Your task to perform on an android device: set an alarm Image 0: 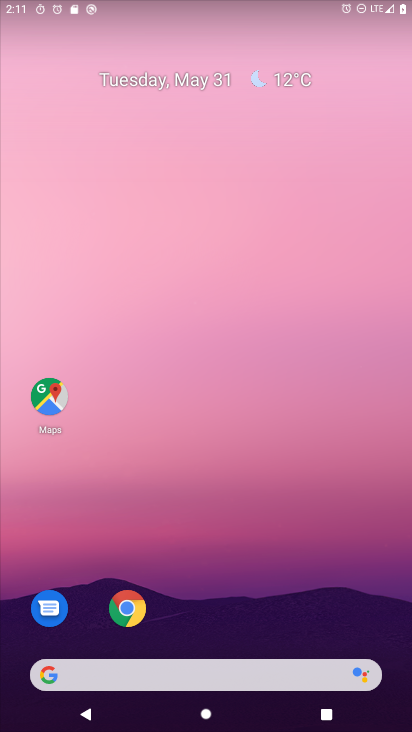
Step 0: drag from (331, 649) to (362, 26)
Your task to perform on an android device: set an alarm Image 1: 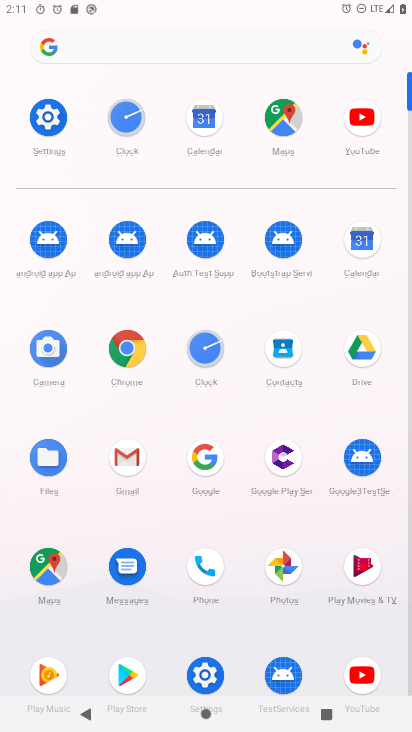
Step 1: click (118, 122)
Your task to perform on an android device: set an alarm Image 2: 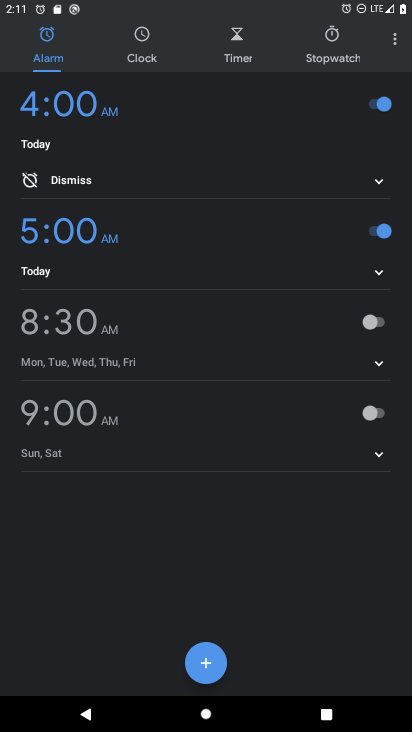
Step 2: click (211, 663)
Your task to perform on an android device: set an alarm Image 3: 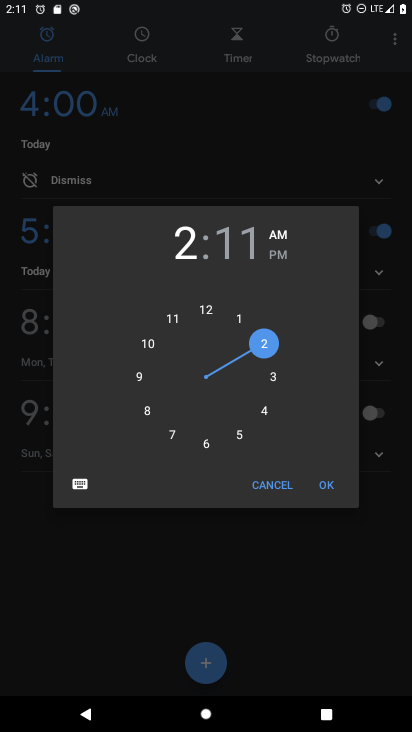
Step 3: click (206, 448)
Your task to perform on an android device: set an alarm Image 4: 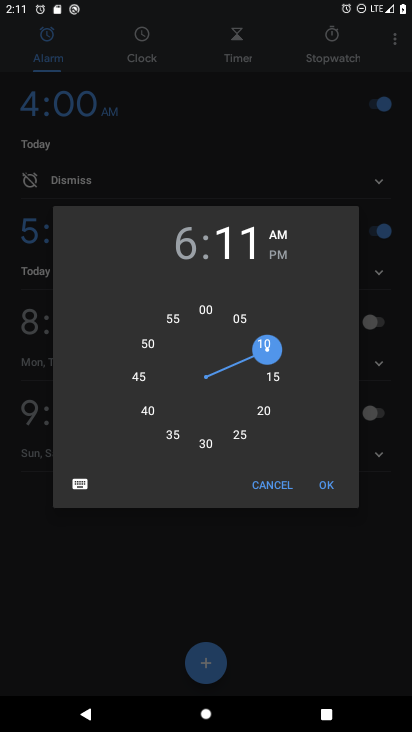
Step 4: click (204, 307)
Your task to perform on an android device: set an alarm Image 5: 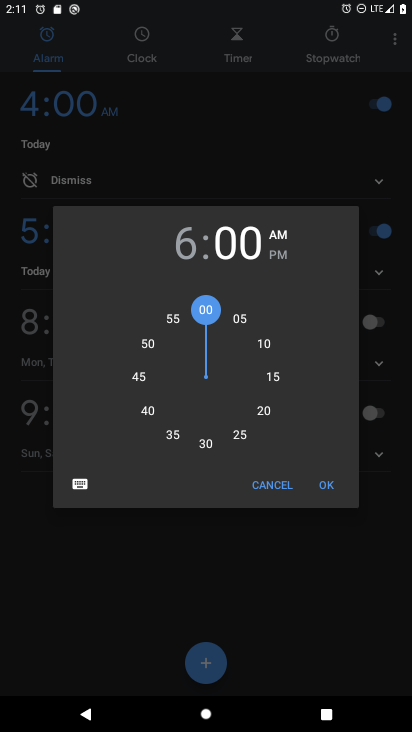
Step 5: click (325, 491)
Your task to perform on an android device: set an alarm Image 6: 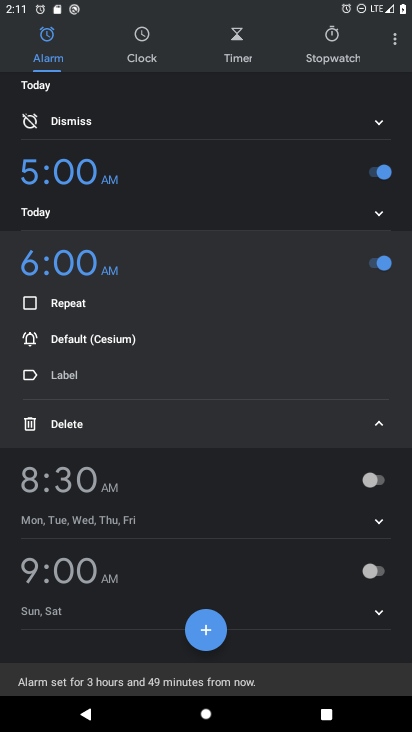
Step 6: task complete